Your task to perform on an android device: turn off improve location accuracy Image 0: 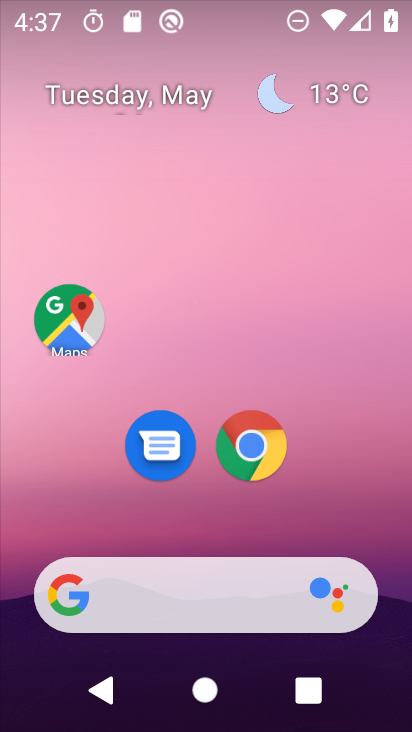
Step 0: press home button
Your task to perform on an android device: turn off improve location accuracy Image 1: 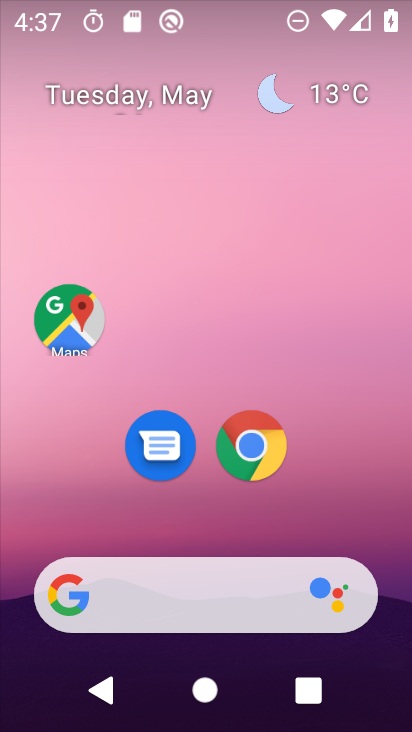
Step 1: drag from (202, 530) to (213, 60)
Your task to perform on an android device: turn off improve location accuracy Image 2: 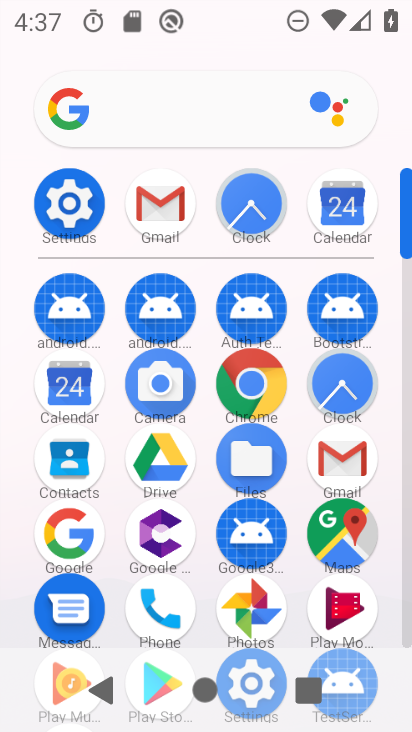
Step 2: click (65, 195)
Your task to perform on an android device: turn off improve location accuracy Image 3: 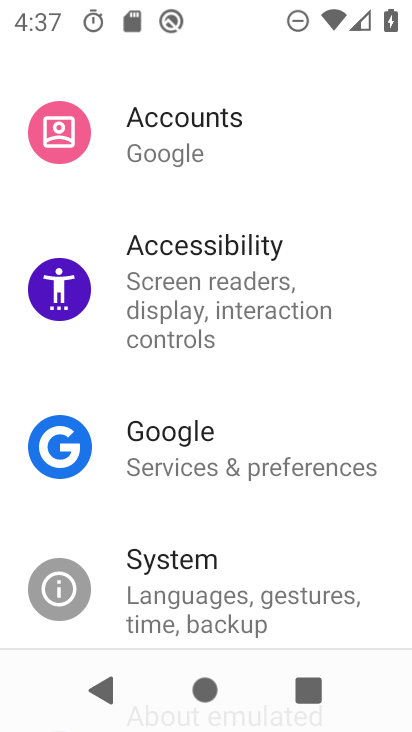
Step 3: drag from (196, 155) to (193, 701)
Your task to perform on an android device: turn off improve location accuracy Image 4: 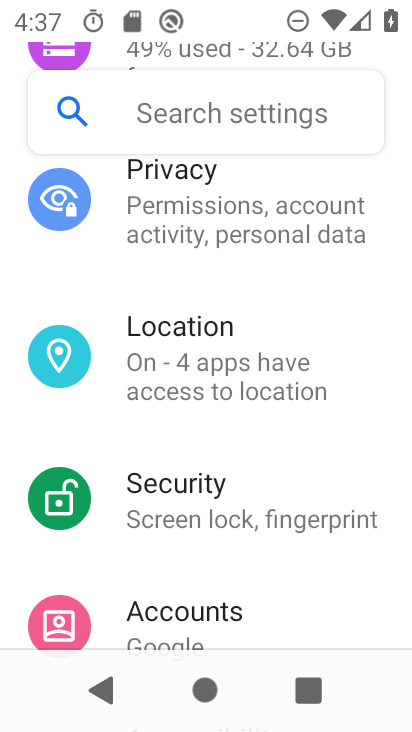
Step 4: click (107, 349)
Your task to perform on an android device: turn off improve location accuracy Image 5: 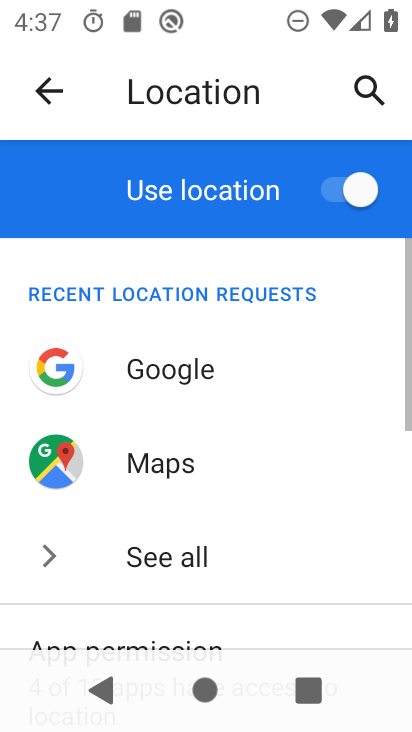
Step 5: drag from (228, 616) to (200, 201)
Your task to perform on an android device: turn off improve location accuracy Image 6: 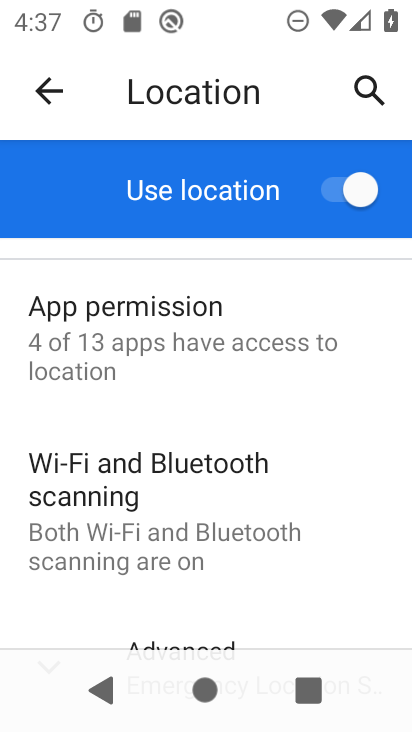
Step 6: drag from (247, 612) to (245, 194)
Your task to perform on an android device: turn off improve location accuracy Image 7: 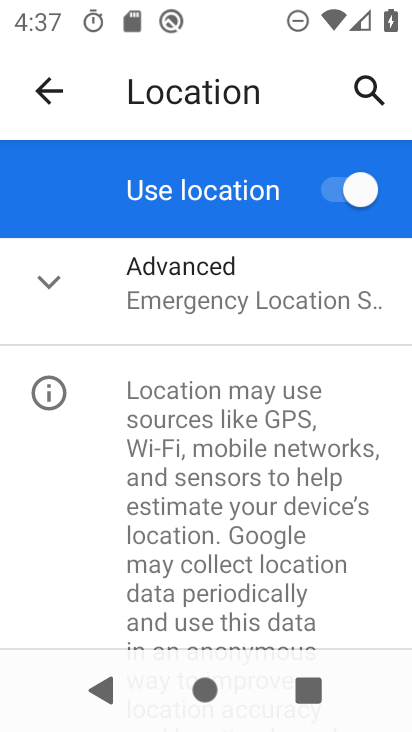
Step 7: click (47, 275)
Your task to perform on an android device: turn off improve location accuracy Image 8: 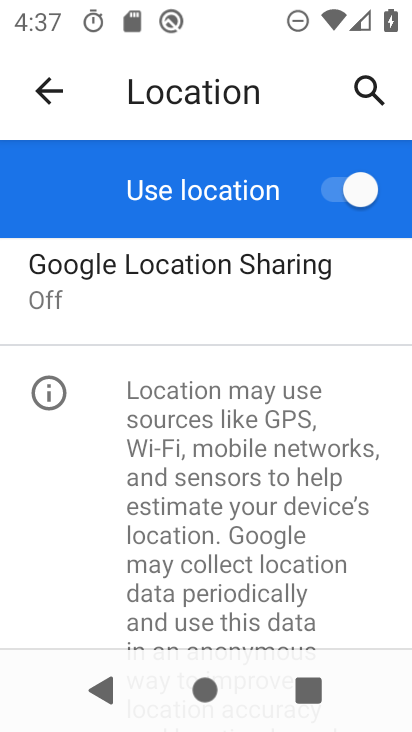
Step 8: drag from (111, 554) to (113, 629)
Your task to perform on an android device: turn off improve location accuracy Image 9: 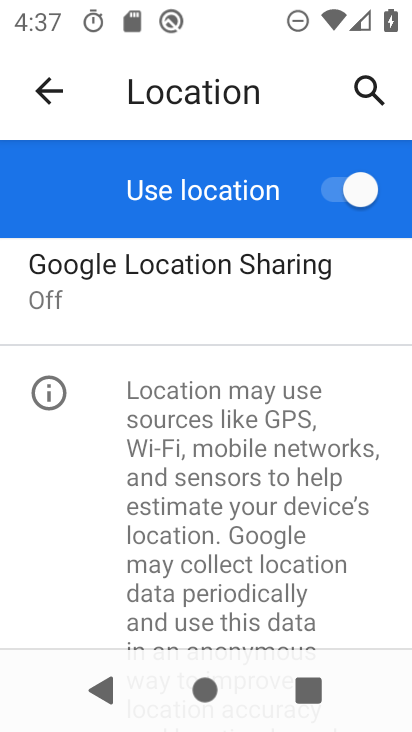
Step 9: drag from (179, 390) to (179, 667)
Your task to perform on an android device: turn off improve location accuracy Image 10: 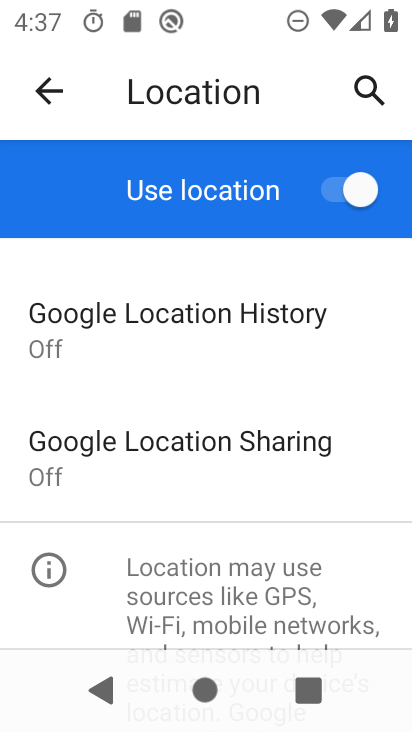
Step 10: drag from (139, 276) to (131, 564)
Your task to perform on an android device: turn off improve location accuracy Image 11: 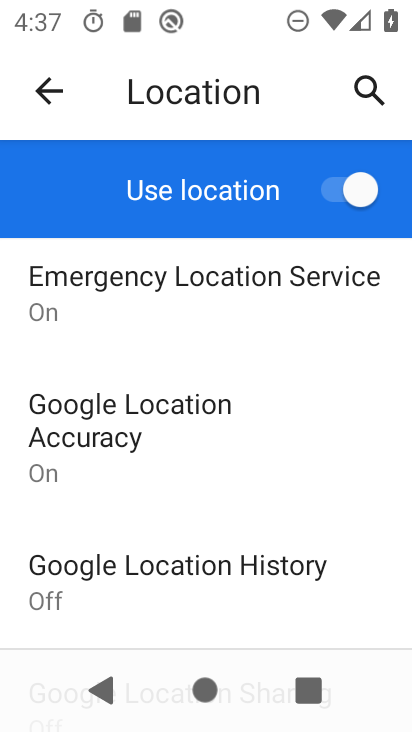
Step 11: click (159, 433)
Your task to perform on an android device: turn off improve location accuracy Image 12: 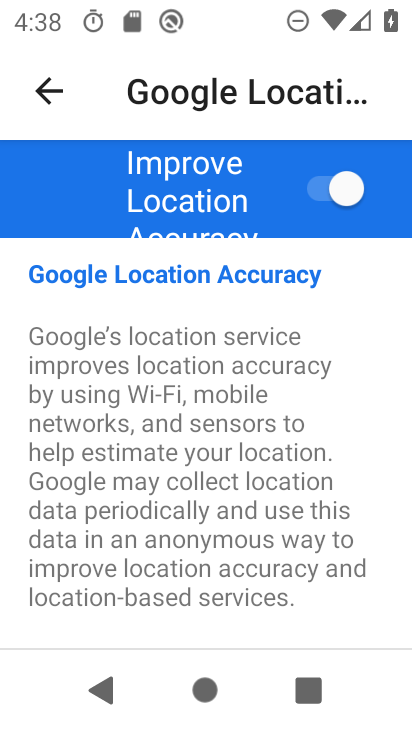
Step 12: click (327, 182)
Your task to perform on an android device: turn off improve location accuracy Image 13: 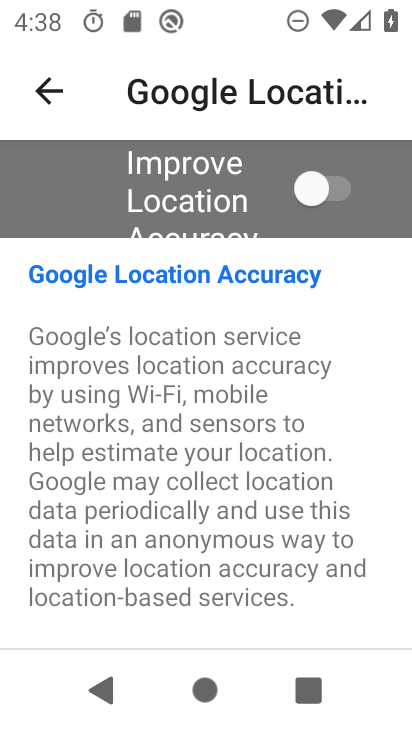
Step 13: task complete